Your task to perform on an android device: When is my next meeting? Image 0: 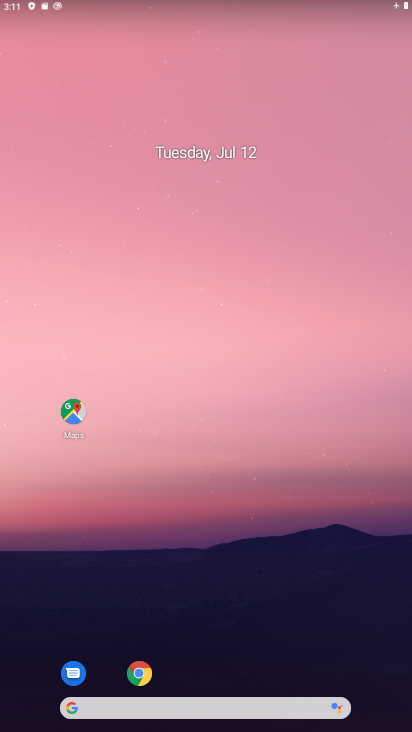
Step 0: drag from (193, 701) to (217, 84)
Your task to perform on an android device: When is my next meeting? Image 1: 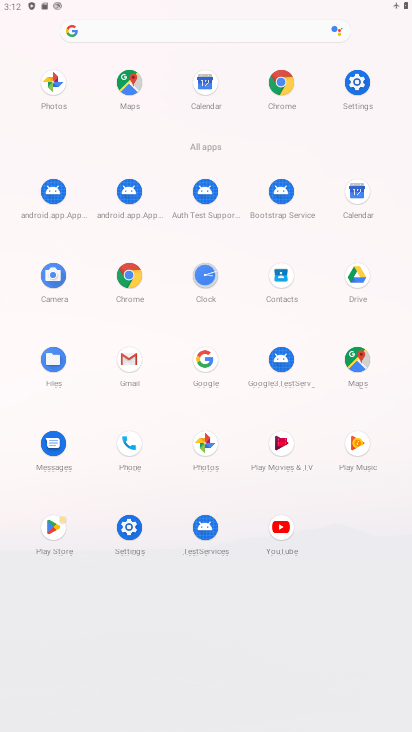
Step 1: click (357, 192)
Your task to perform on an android device: When is my next meeting? Image 2: 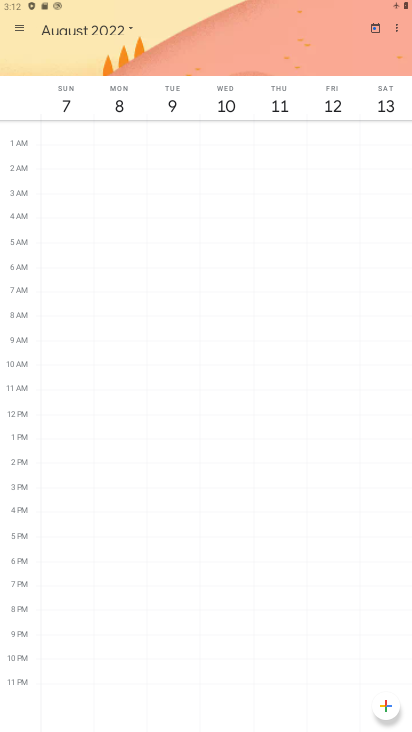
Step 2: click (376, 32)
Your task to perform on an android device: When is my next meeting? Image 3: 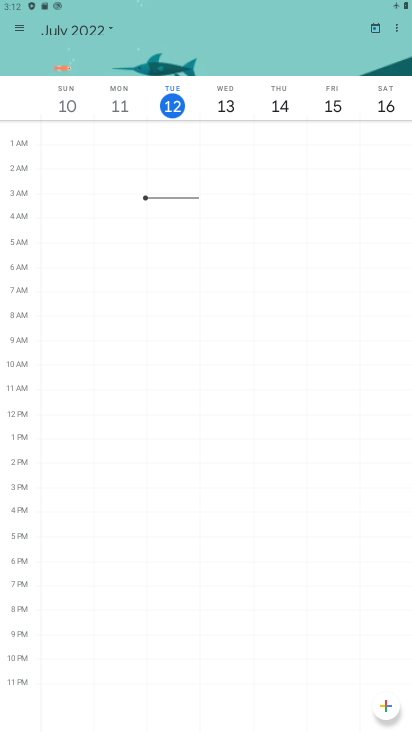
Step 3: click (111, 27)
Your task to perform on an android device: When is my next meeting? Image 4: 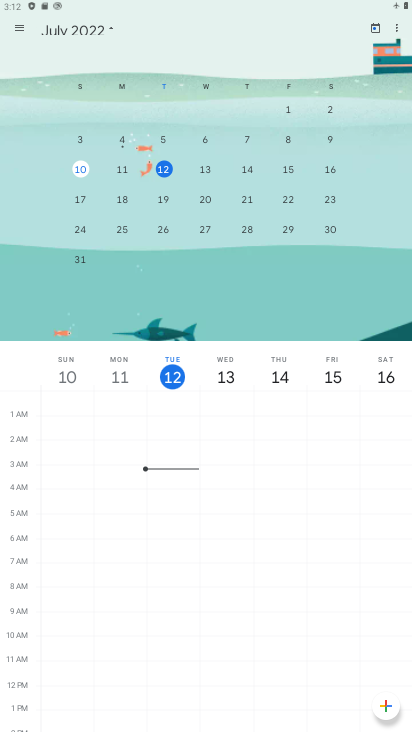
Step 4: click (241, 170)
Your task to perform on an android device: When is my next meeting? Image 5: 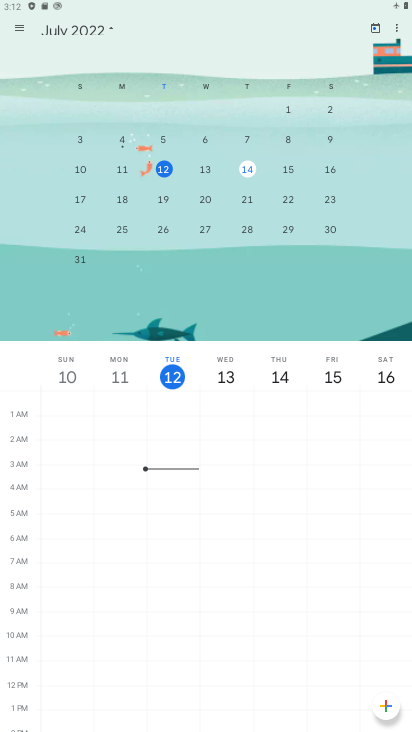
Step 5: click (20, 17)
Your task to perform on an android device: When is my next meeting? Image 6: 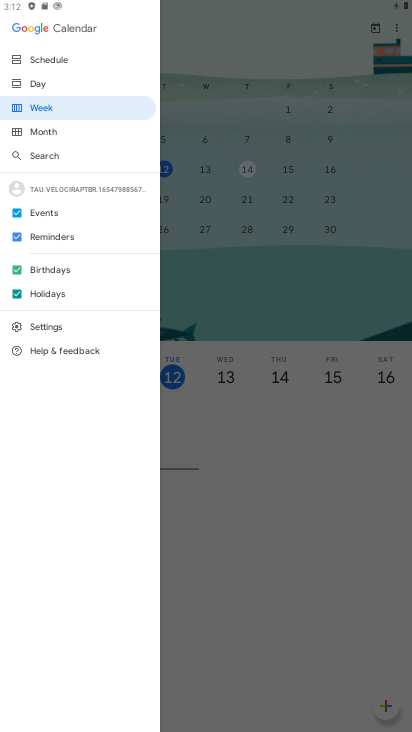
Step 6: click (64, 52)
Your task to perform on an android device: When is my next meeting? Image 7: 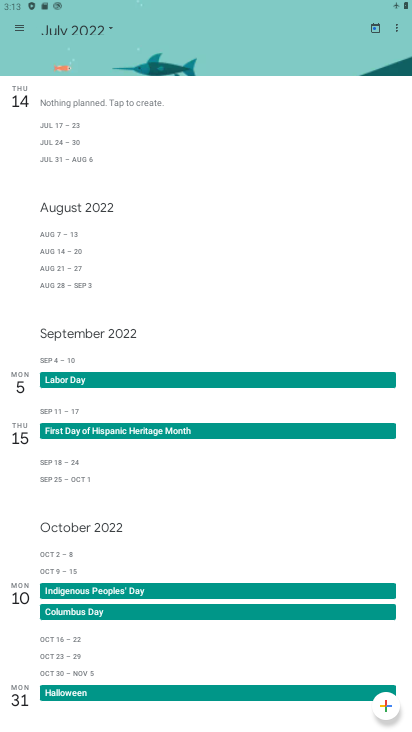
Step 7: task complete